Your task to perform on an android device: delete a single message in the gmail app Image 0: 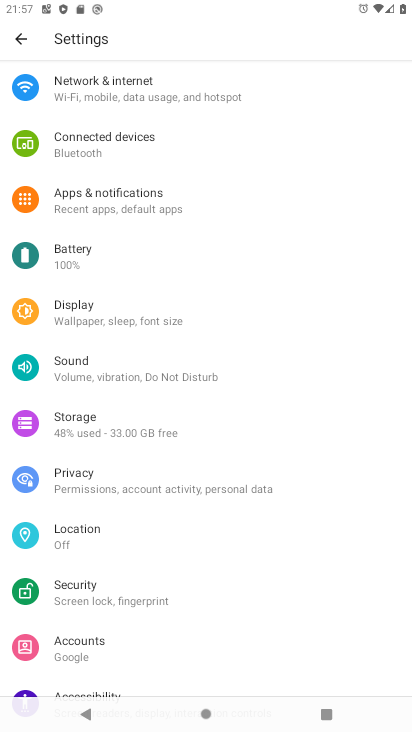
Step 0: press home button
Your task to perform on an android device: delete a single message in the gmail app Image 1: 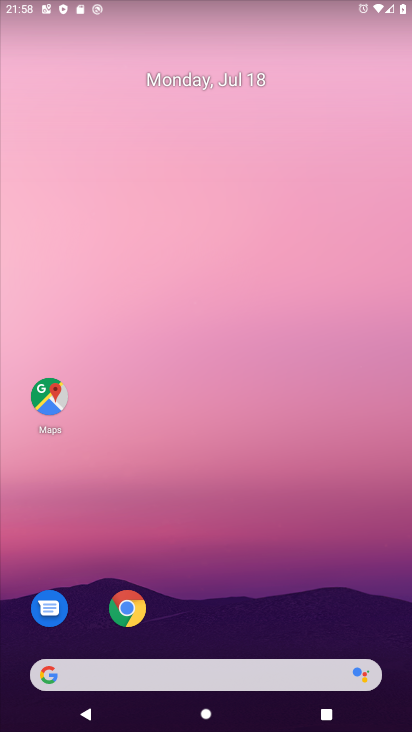
Step 1: drag from (32, 704) to (270, 205)
Your task to perform on an android device: delete a single message in the gmail app Image 2: 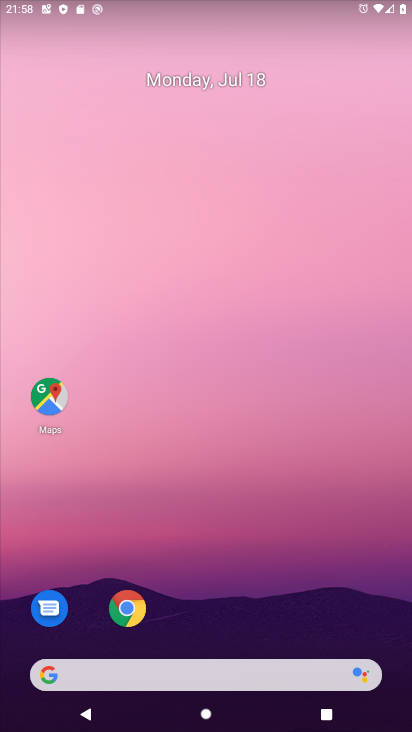
Step 2: drag from (82, 668) to (406, 205)
Your task to perform on an android device: delete a single message in the gmail app Image 3: 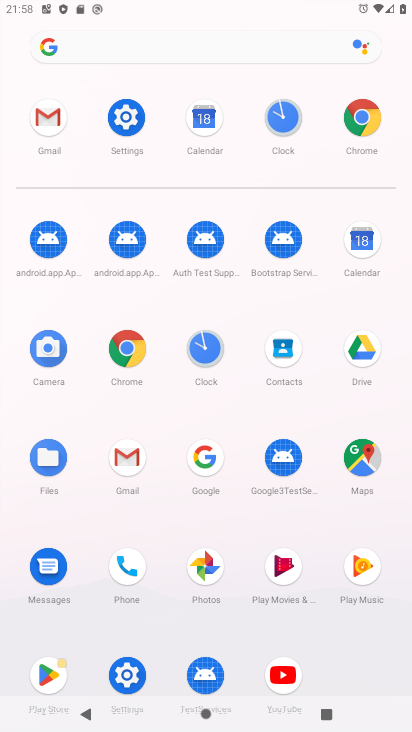
Step 3: click (124, 464)
Your task to perform on an android device: delete a single message in the gmail app Image 4: 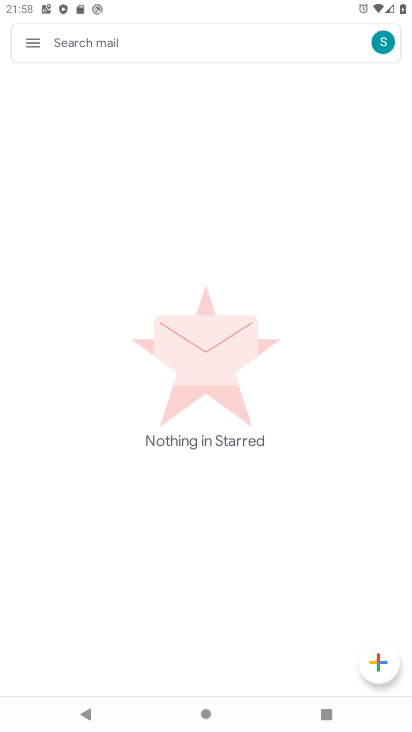
Step 4: click (31, 40)
Your task to perform on an android device: delete a single message in the gmail app Image 5: 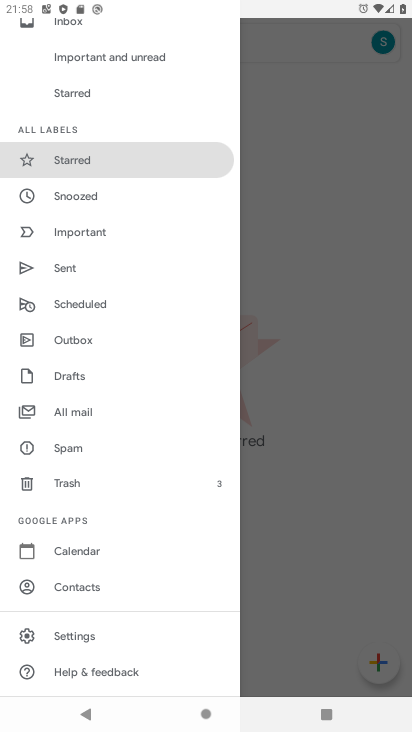
Step 5: drag from (130, 214) to (192, 558)
Your task to perform on an android device: delete a single message in the gmail app Image 6: 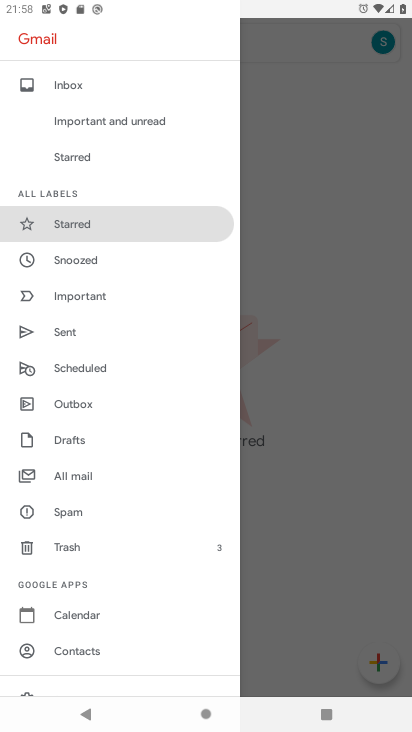
Step 6: click (90, 92)
Your task to perform on an android device: delete a single message in the gmail app Image 7: 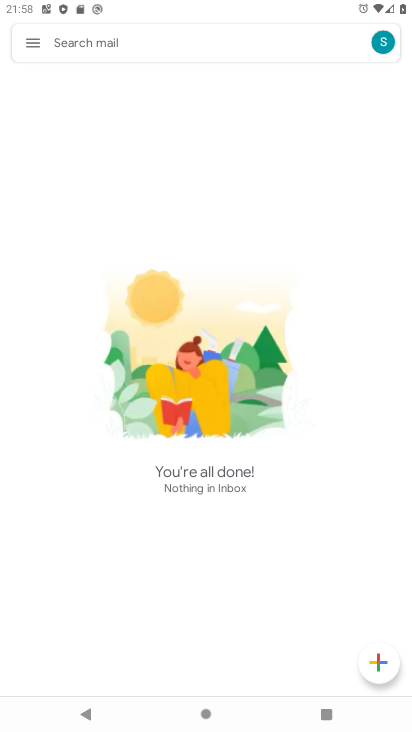
Step 7: task complete